Your task to perform on an android device: turn off priority inbox in the gmail app Image 0: 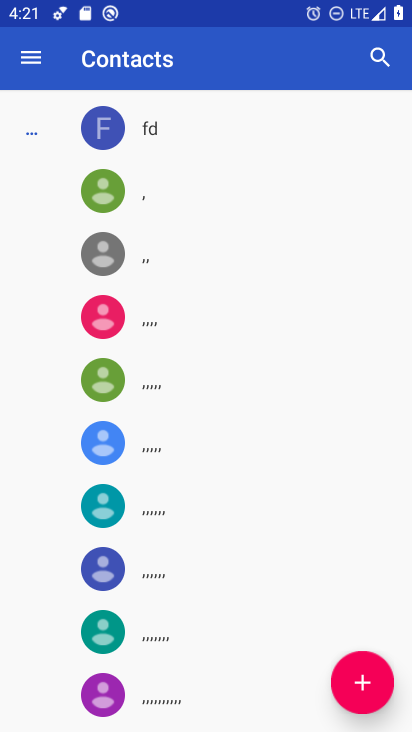
Step 0: press home button
Your task to perform on an android device: turn off priority inbox in the gmail app Image 1: 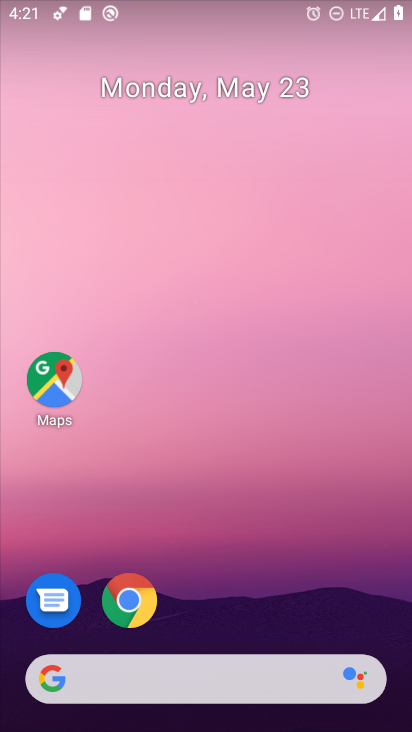
Step 1: drag from (297, 644) to (340, 9)
Your task to perform on an android device: turn off priority inbox in the gmail app Image 2: 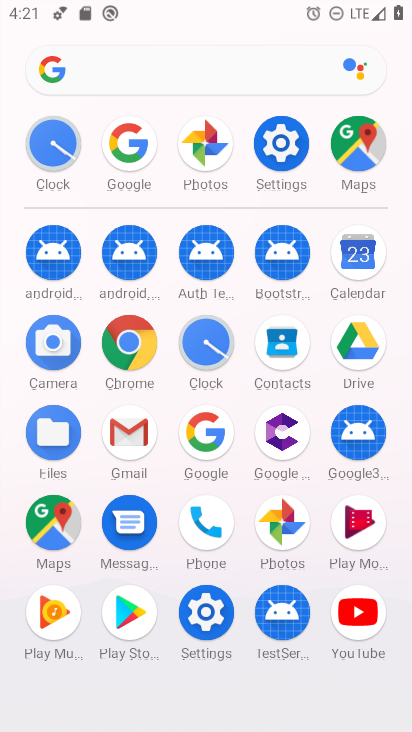
Step 2: click (132, 437)
Your task to perform on an android device: turn off priority inbox in the gmail app Image 3: 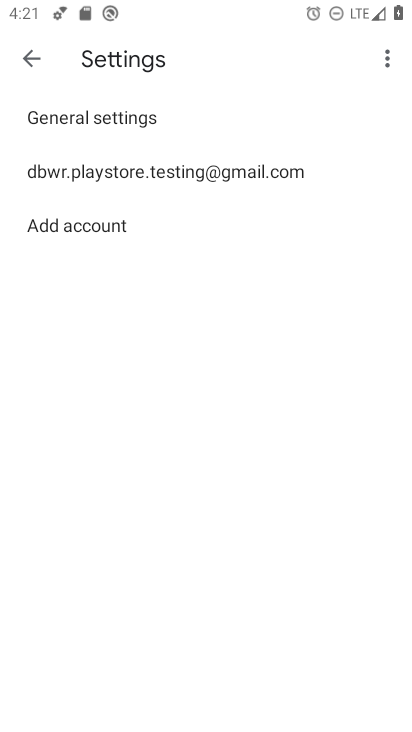
Step 3: click (147, 174)
Your task to perform on an android device: turn off priority inbox in the gmail app Image 4: 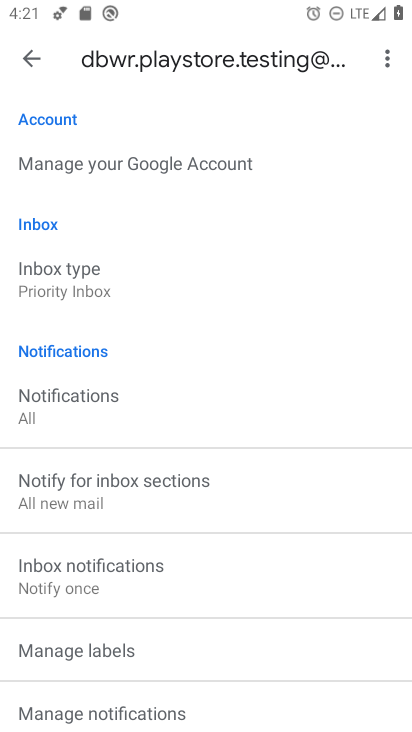
Step 4: click (44, 273)
Your task to perform on an android device: turn off priority inbox in the gmail app Image 5: 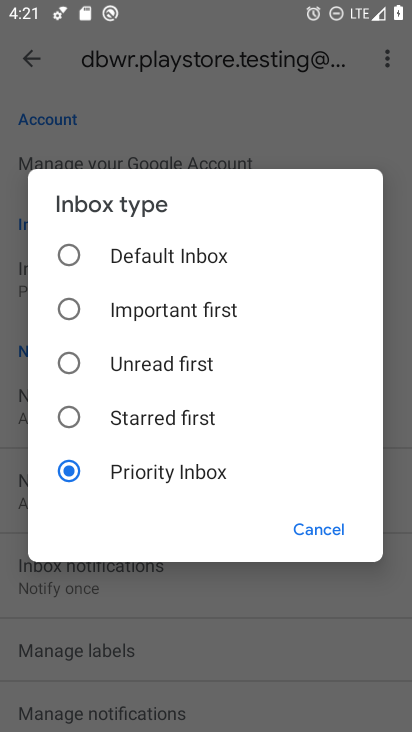
Step 5: click (68, 260)
Your task to perform on an android device: turn off priority inbox in the gmail app Image 6: 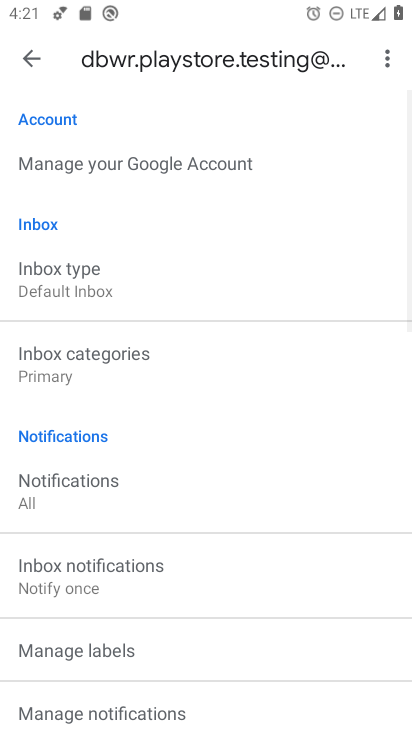
Step 6: task complete